Your task to perform on an android device: Show me productivity apps on the Play Store Image 0: 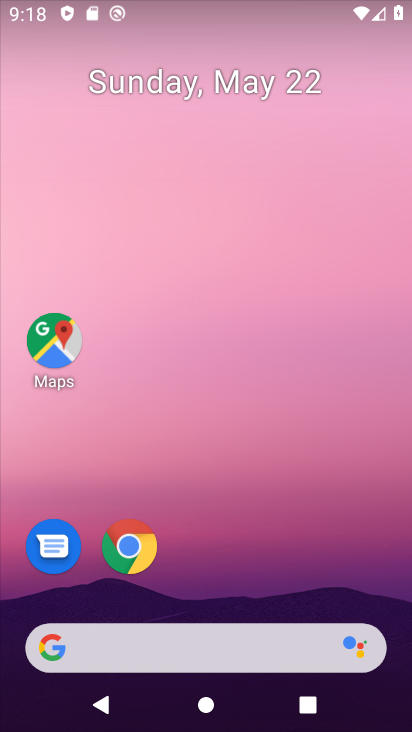
Step 0: drag from (256, 579) to (184, 130)
Your task to perform on an android device: Show me productivity apps on the Play Store Image 1: 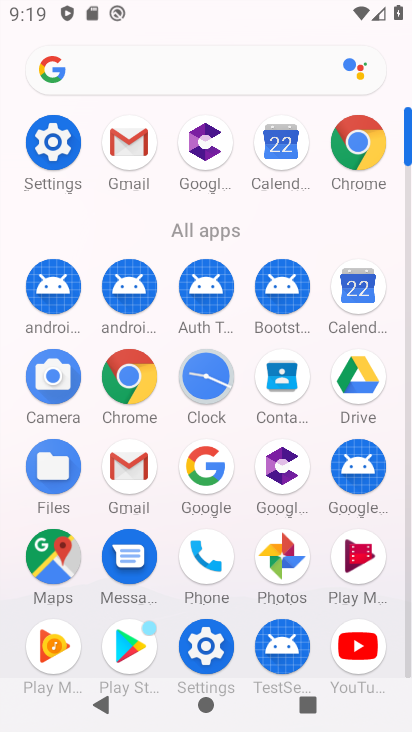
Step 1: click (135, 639)
Your task to perform on an android device: Show me productivity apps on the Play Store Image 2: 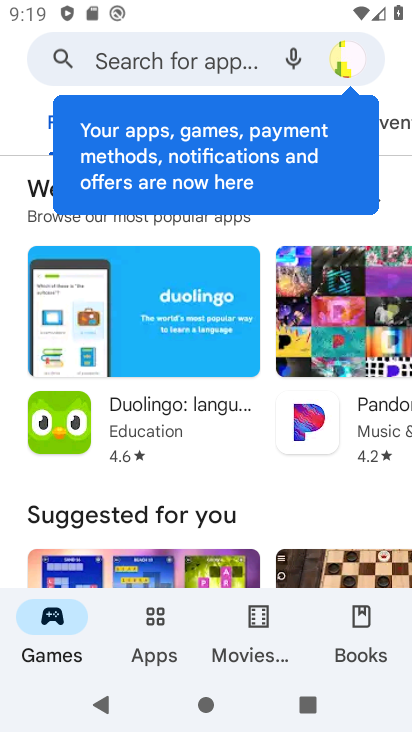
Step 2: click (149, 639)
Your task to perform on an android device: Show me productivity apps on the Play Store Image 3: 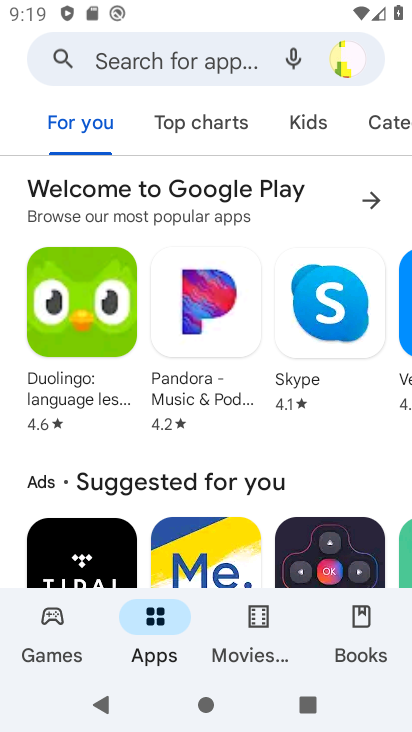
Step 3: click (376, 134)
Your task to perform on an android device: Show me productivity apps on the Play Store Image 4: 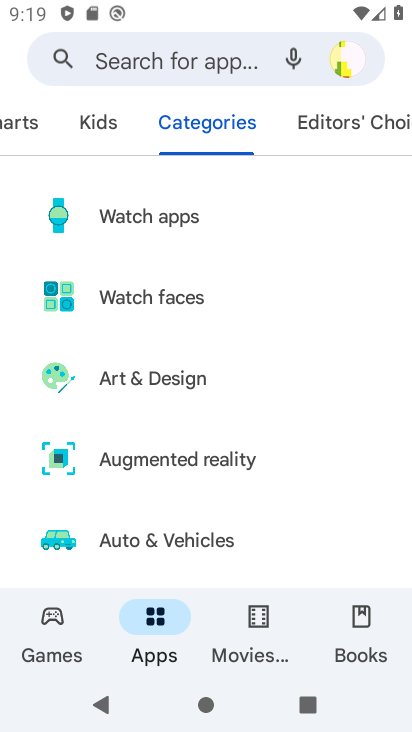
Step 4: drag from (236, 580) to (250, 158)
Your task to perform on an android device: Show me productivity apps on the Play Store Image 5: 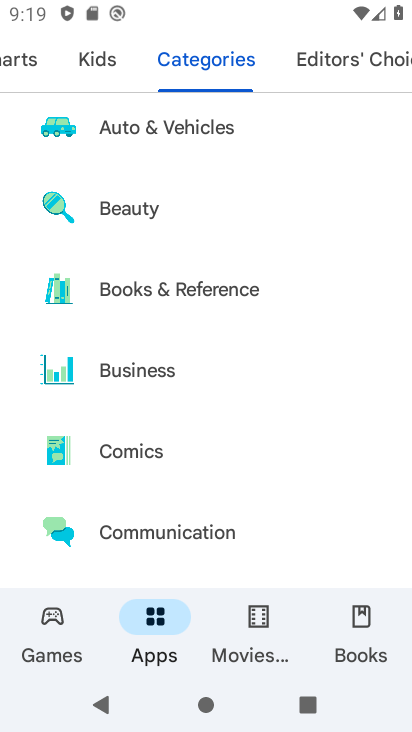
Step 5: drag from (220, 557) to (166, 114)
Your task to perform on an android device: Show me productivity apps on the Play Store Image 6: 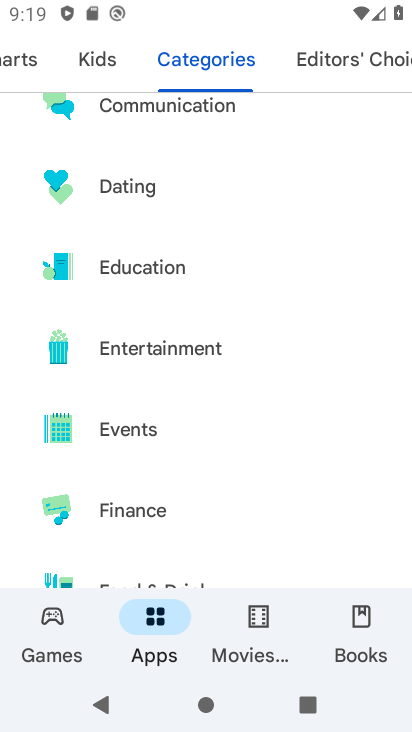
Step 6: drag from (222, 560) to (180, 6)
Your task to perform on an android device: Show me productivity apps on the Play Store Image 7: 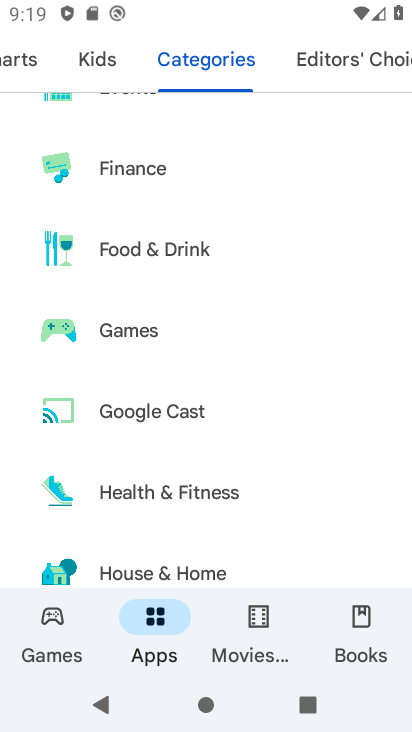
Step 7: drag from (217, 523) to (152, 163)
Your task to perform on an android device: Show me productivity apps on the Play Store Image 8: 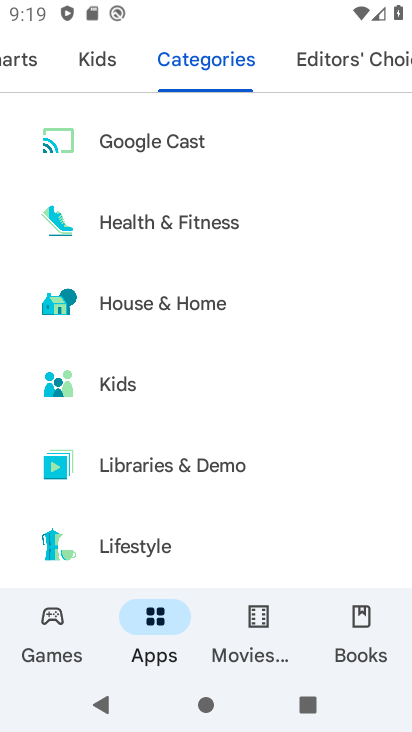
Step 8: drag from (228, 511) to (165, 11)
Your task to perform on an android device: Show me productivity apps on the Play Store Image 9: 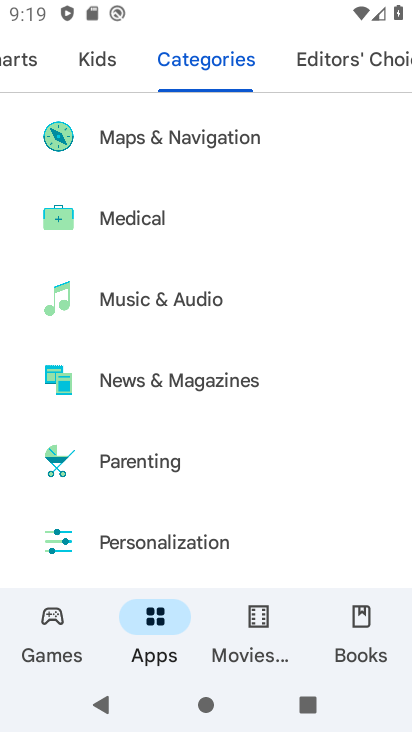
Step 9: drag from (195, 483) to (159, 94)
Your task to perform on an android device: Show me productivity apps on the Play Store Image 10: 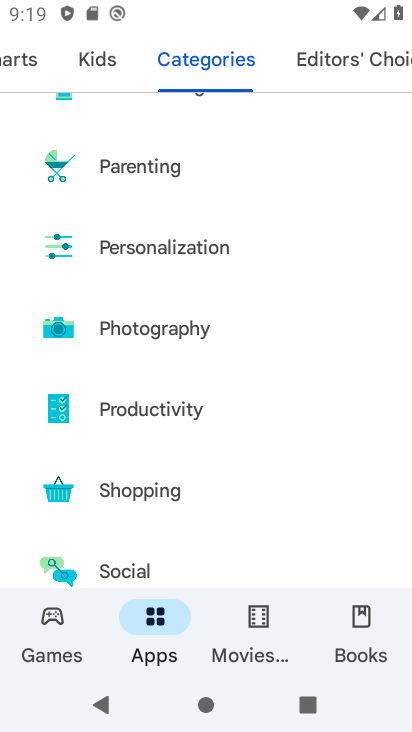
Step 10: click (197, 398)
Your task to perform on an android device: Show me productivity apps on the Play Store Image 11: 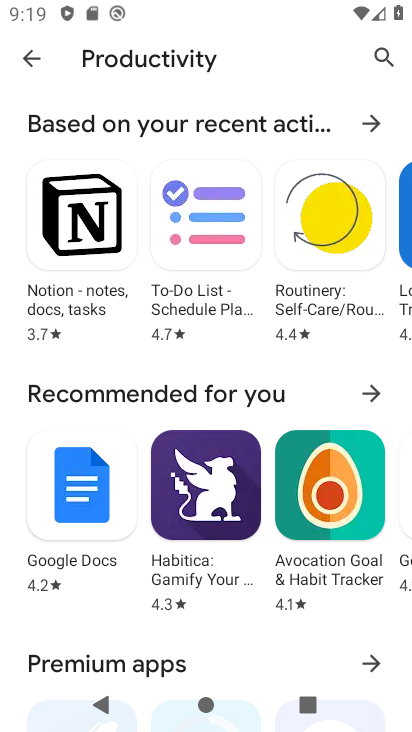
Step 11: task complete